Your task to perform on an android device: Go to Wikipedia Image 0: 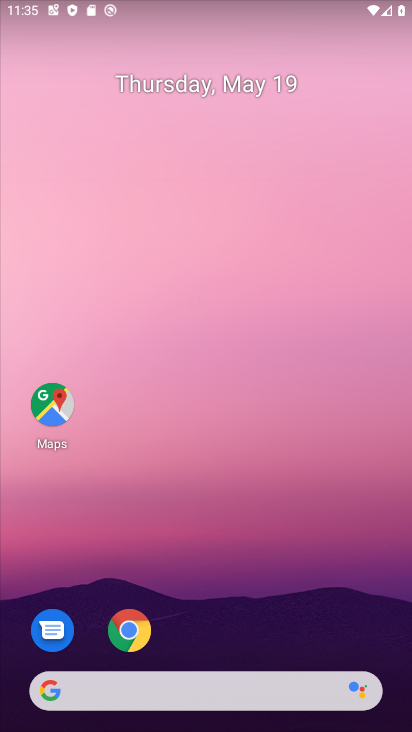
Step 0: click (130, 629)
Your task to perform on an android device: Go to Wikipedia Image 1: 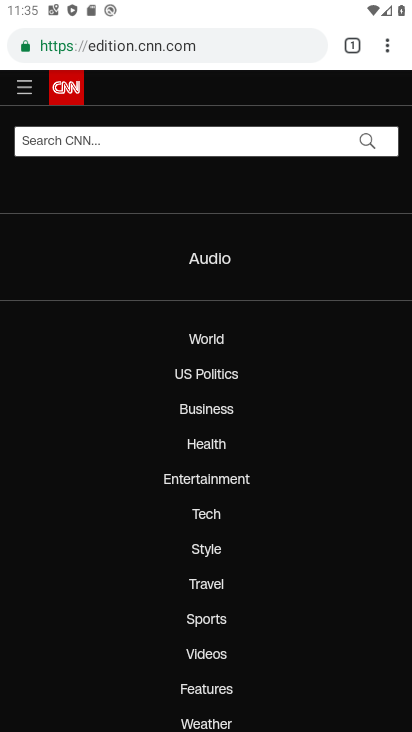
Step 1: click (269, 52)
Your task to perform on an android device: Go to Wikipedia Image 2: 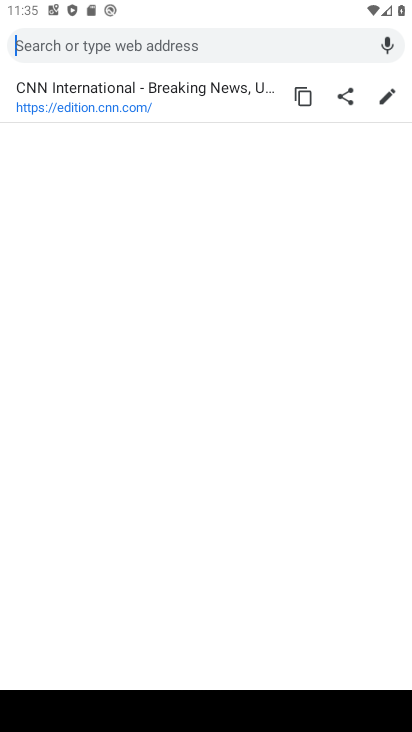
Step 2: type "Wikipedia"
Your task to perform on an android device: Go to Wikipedia Image 3: 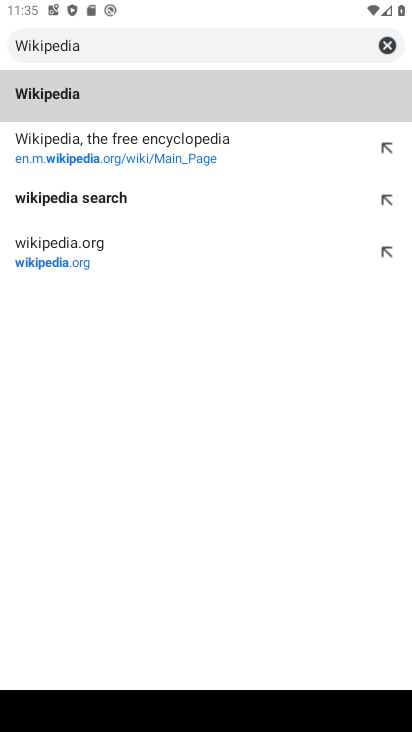
Step 3: click (59, 93)
Your task to perform on an android device: Go to Wikipedia Image 4: 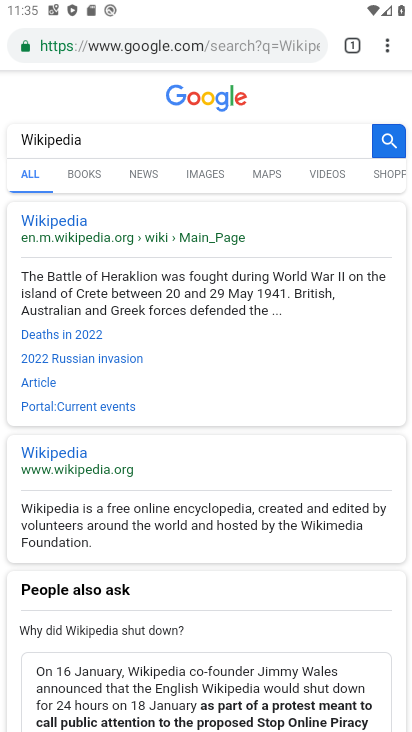
Step 4: click (58, 222)
Your task to perform on an android device: Go to Wikipedia Image 5: 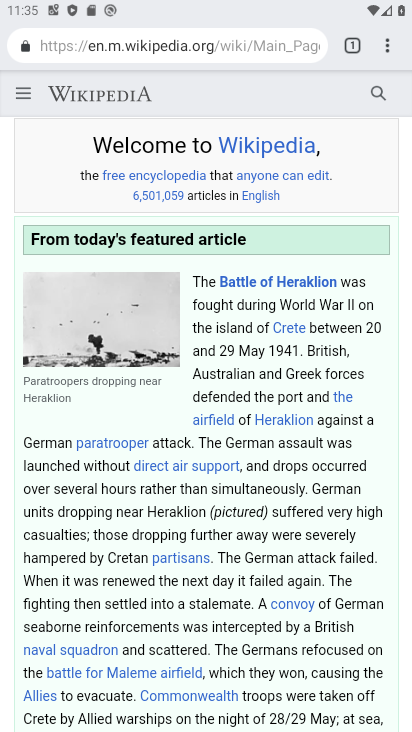
Step 5: task complete